Your task to perform on an android device: toggle pop-ups in chrome Image 0: 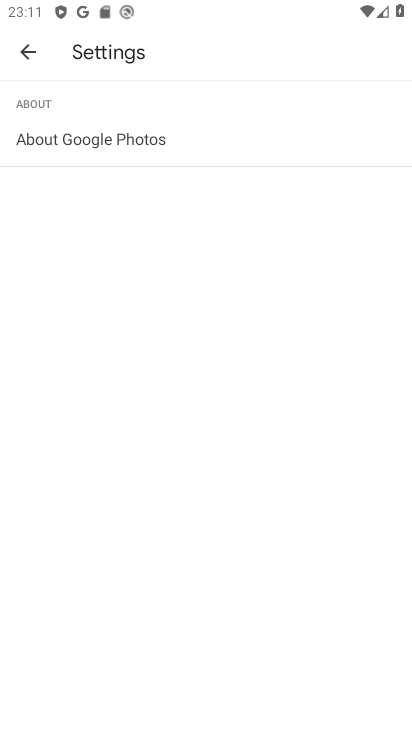
Step 0: press home button
Your task to perform on an android device: toggle pop-ups in chrome Image 1: 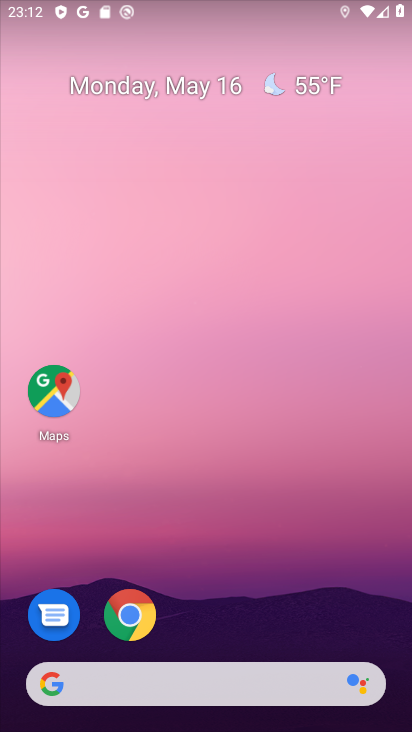
Step 1: click (123, 624)
Your task to perform on an android device: toggle pop-ups in chrome Image 2: 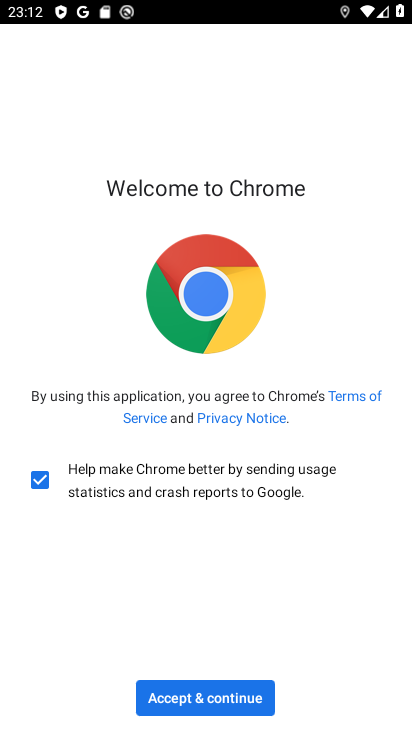
Step 2: click (170, 702)
Your task to perform on an android device: toggle pop-ups in chrome Image 3: 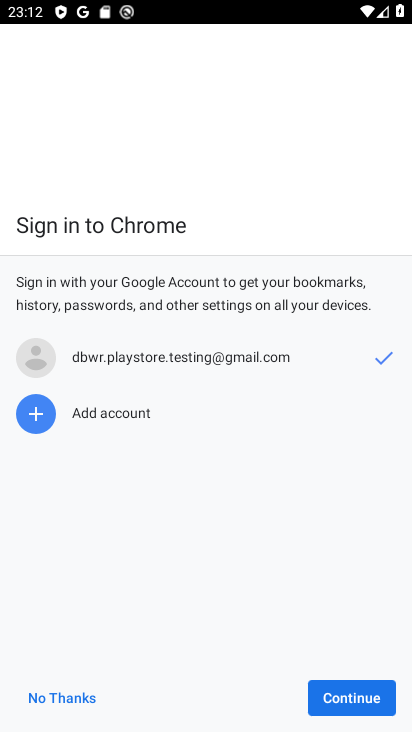
Step 3: click (365, 687)
Your task to perform on an android device: toggle pop-ups in chrome Image 4: 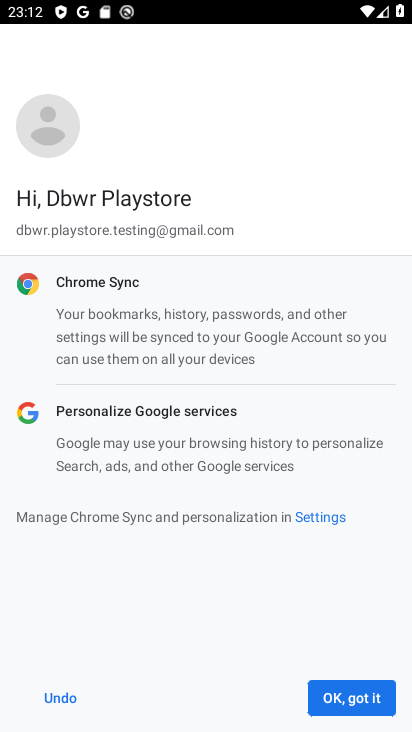
Step 4: click (365, 687)
Your task to perform on an android device: toggle pop-ups in chrome Image 5: 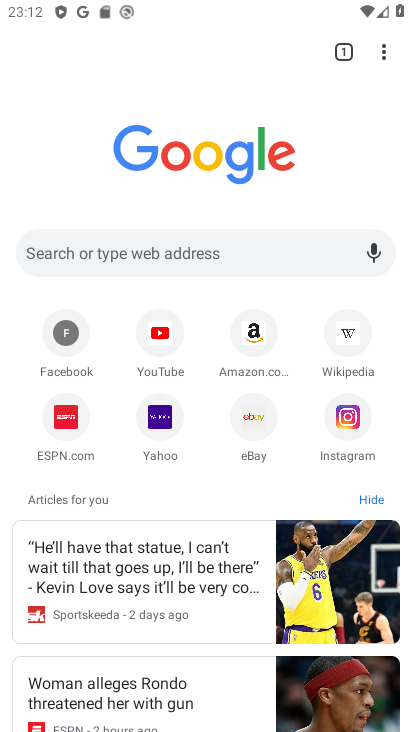
Step 5: click (387, 51)
Your task to perform on an android device: toggle pop-ups in chrome Image 6: 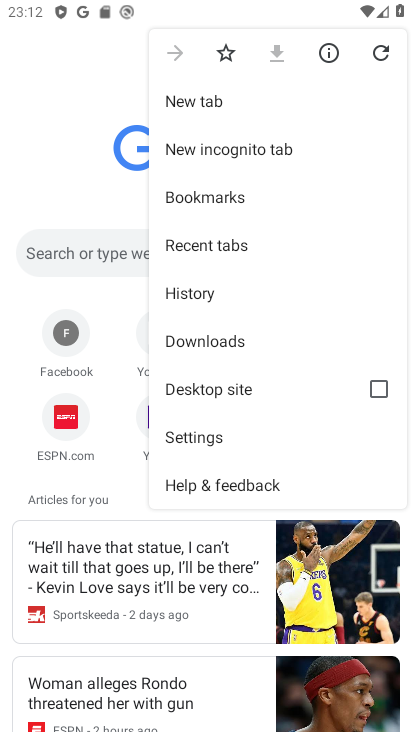
Step 6: click (220, 443)
Your task to perform on an android device: toggle pop-ups in chrome Image 7: 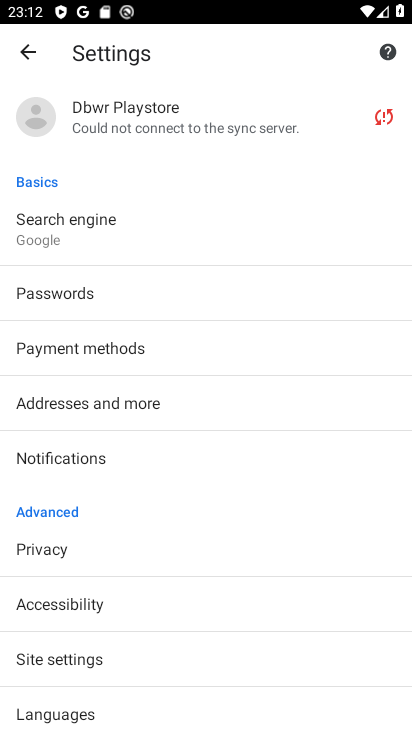
Step 7: click (13, 645)
Your task to perform on an android device: toggle pop-ups in chrome Image 8: 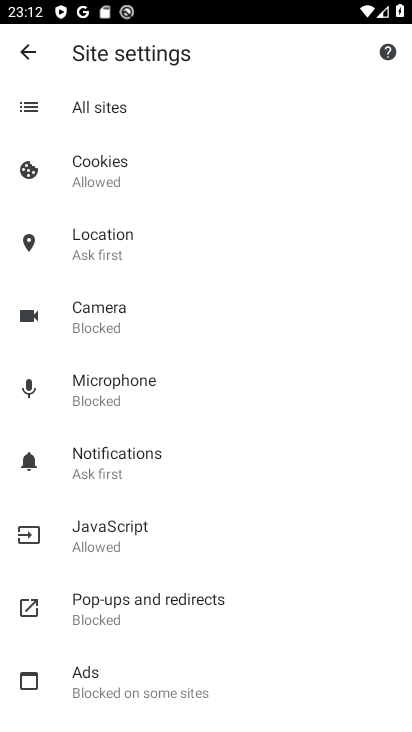
Step 8: click (73, 621)
Your task to perform on an android device: toggle pop-ups in chrome Image 9: 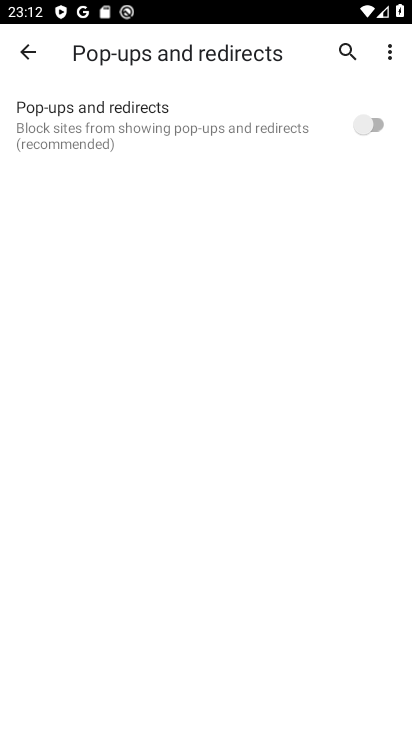
Step 9: click (370, 127)
Your task to perform on an android device: toggle pop-ups in chrome Image 10: 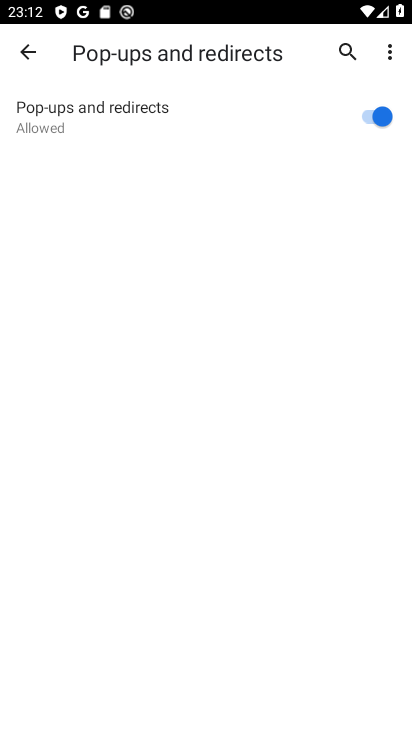
Step 10: task complete